Your task to perform on an android device: Show me recent news Image 0: 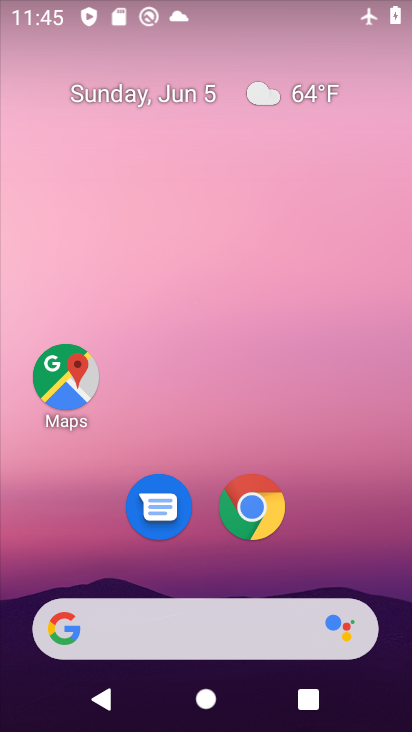
Step 0: click (252, 503)
Your task to perform on an android device: Show me recent news Image 1: 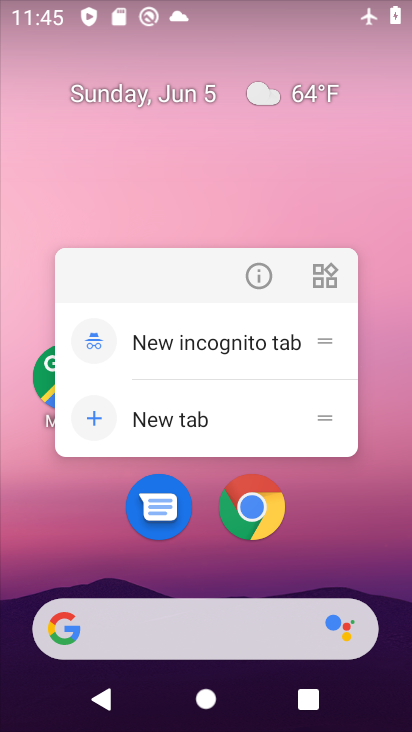
Step 1: click (252, 503)
Your task to perform on an android device: Show me recent news Image 2: 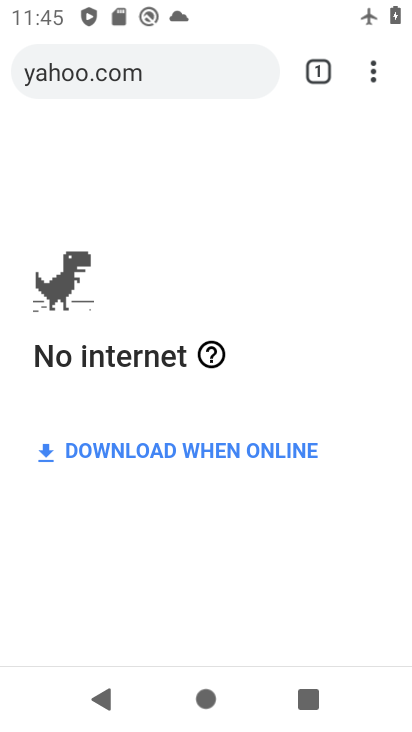
Step 2: click (191, 75)
Your task to perform on an android device: Show me recent news Image 3: 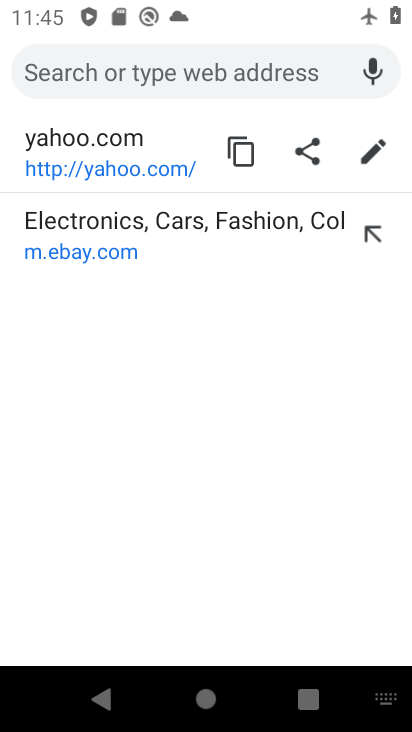
Step 3: type "news"
Your task to perform on an android device: Show me recent news Image 4: 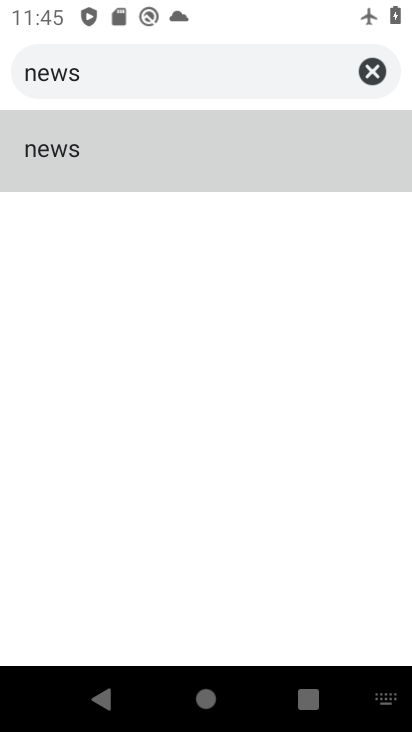
Step 4: click (66, 151)
Your task to perform on an android device: Show me recent news Image 5: 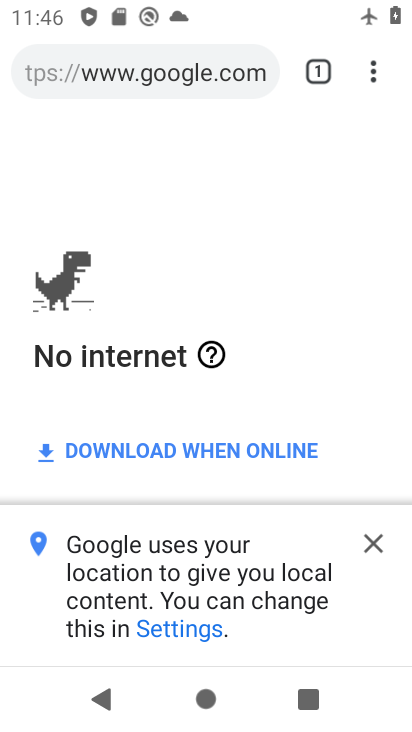
Step 5: task complete